Your task to perform on an android device: Open location settings Image 0: 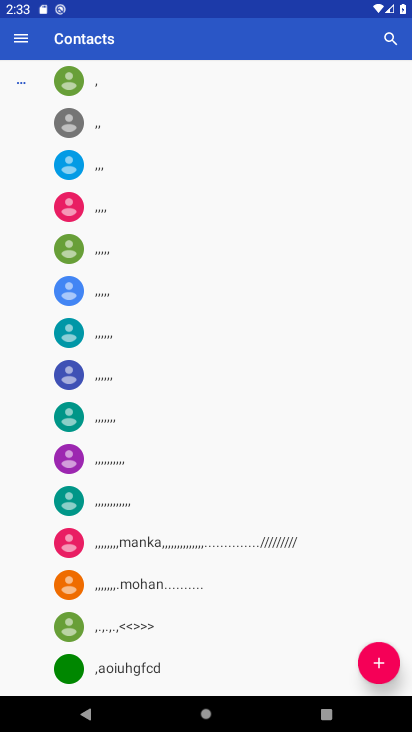
Step 0: press home button
Your task to perform on an android device: Open location settings Image 1: 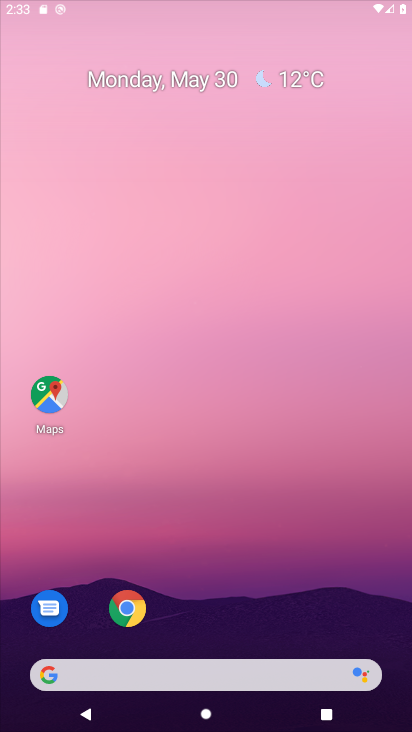
Step 1: drag from (157, 52) to (139, 5)
Your task to perform on an android device: Open location settings Image 2: 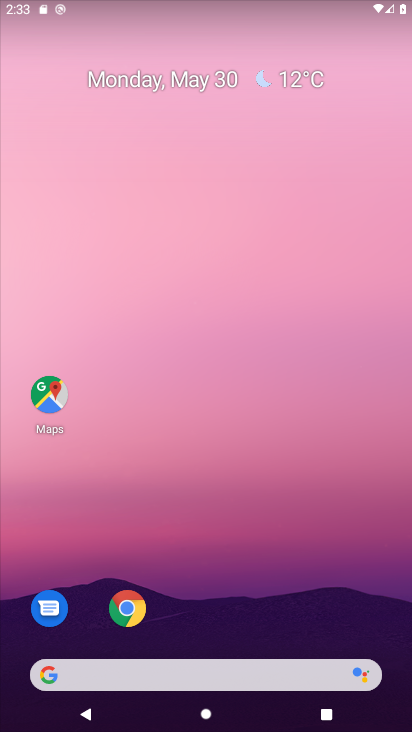
Step 2: drag from (242, 571) to (208, 58)
Your task to perform on an android device: Open location settings Image 3: 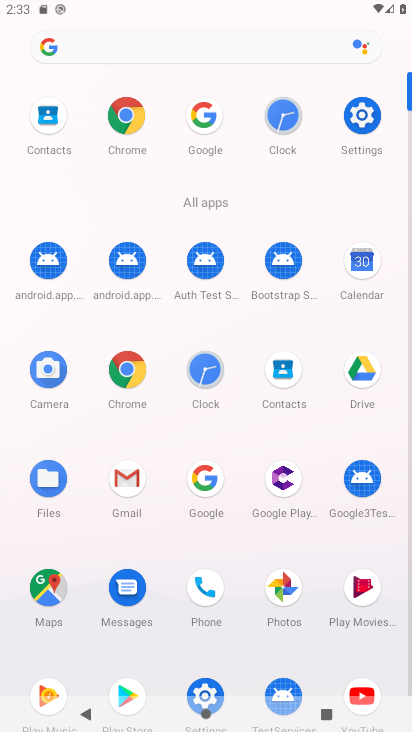
Step 3: click (359, 108)
Your task to perform on an android device: Open location settings Image 4: 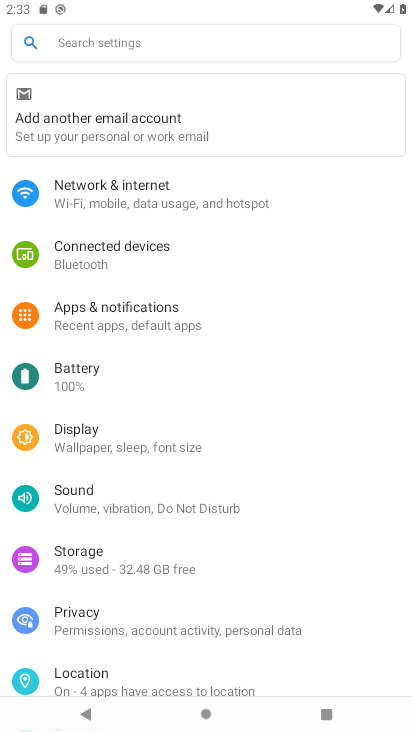
Step 4: click (152, 671)
Your task to perform on an android device: Open location settings Image 5: 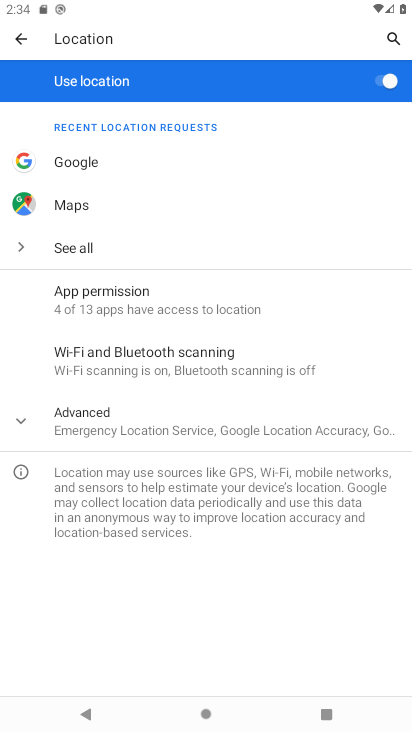
Step 5: task complete